Your task to perform on an android device: turn off improve location accuracy Image 0: 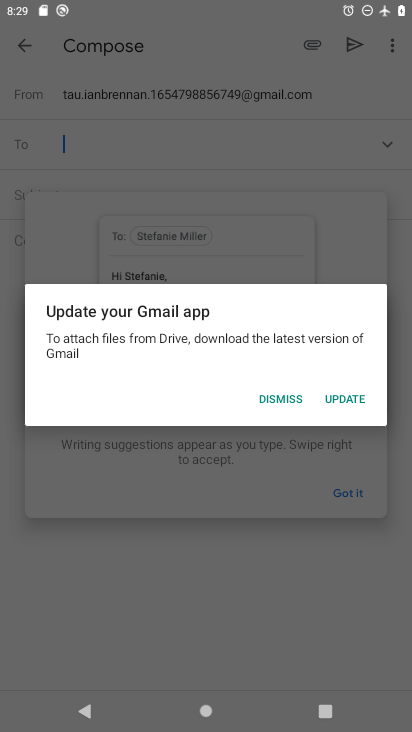
Step 0: press home button
Your task to perform on an android device: turn off improve location accuracy Image 1: 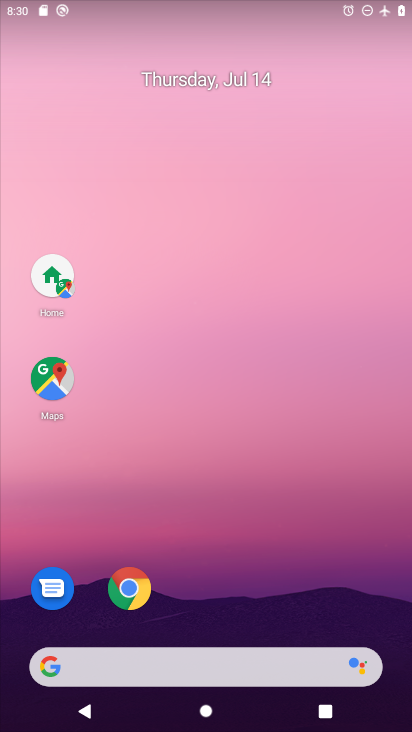
Step 1: drag from (73, 522) to (204, 165)
Your task to perform on an android device: turn off improve location accuracy Image 2: 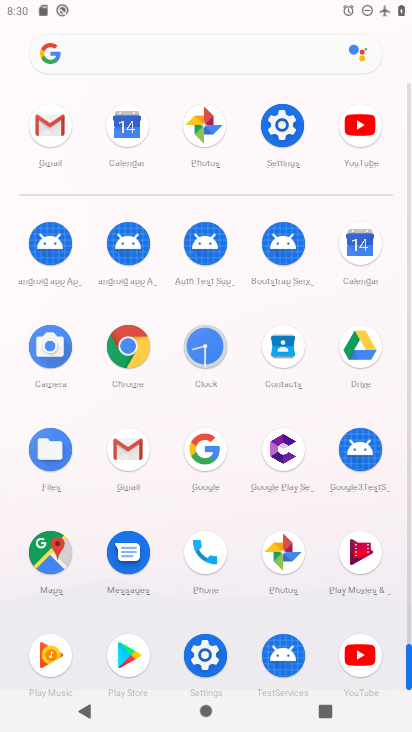
Step 2: click (196, 661)
Your task to perform on an android device: turn off improve location accuracy Image 3: 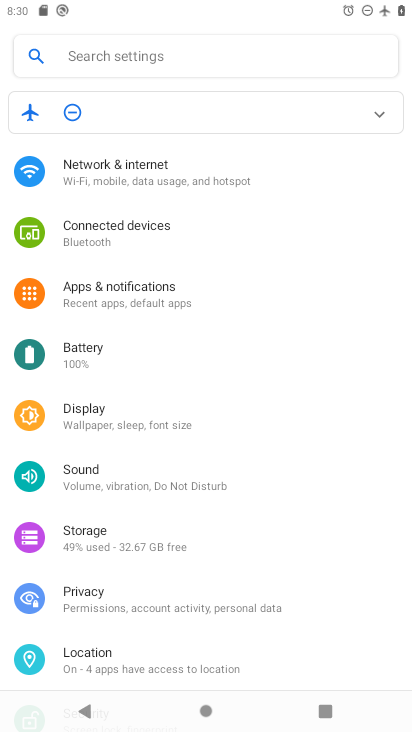
Step 3: click (126, 674)
Your task to perform on an android device: turn off improve location accuracy Image 4: 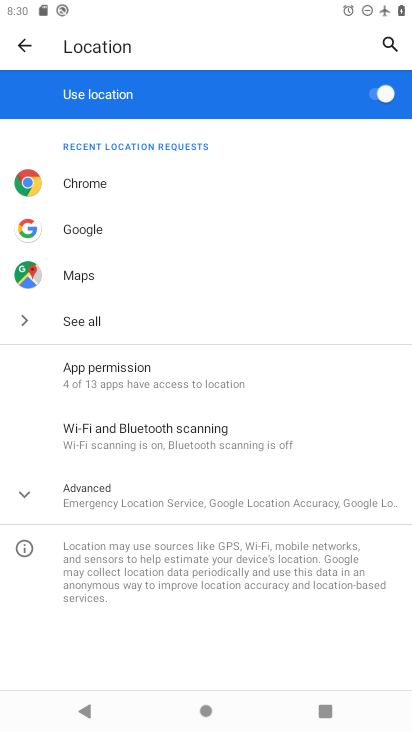
Step 4: click (184, 388)
Your task to perform on an android device: turn off improve location accuracy Image 5: 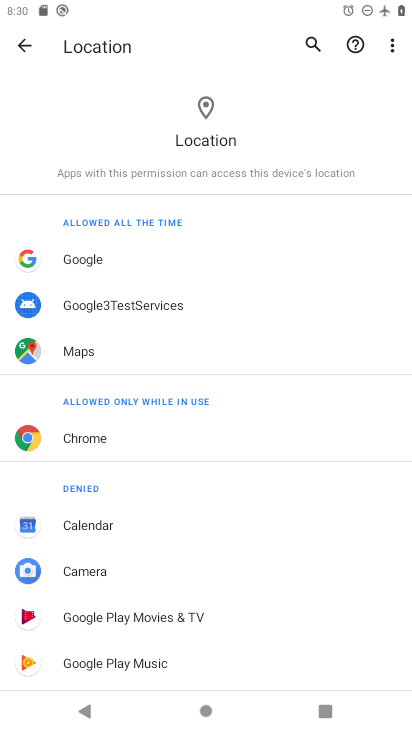
Step 5: click (23, 42)
Your task to perform on an android device: turn off improve location accuracy Image 6: 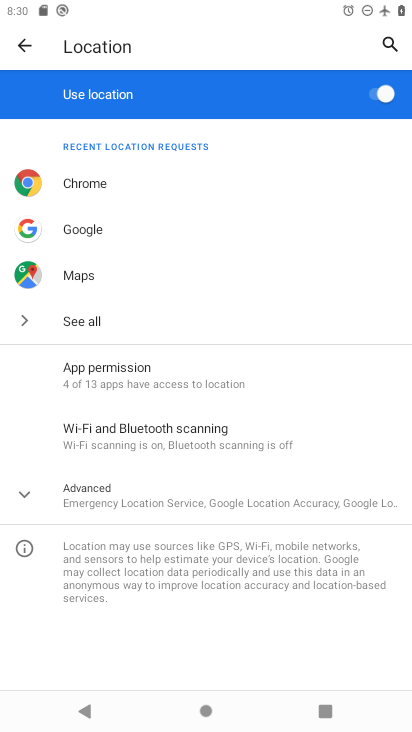
Step 6: click (96, 482)
Your task to perform on an android device: turn off improve location accuracy Image 7: 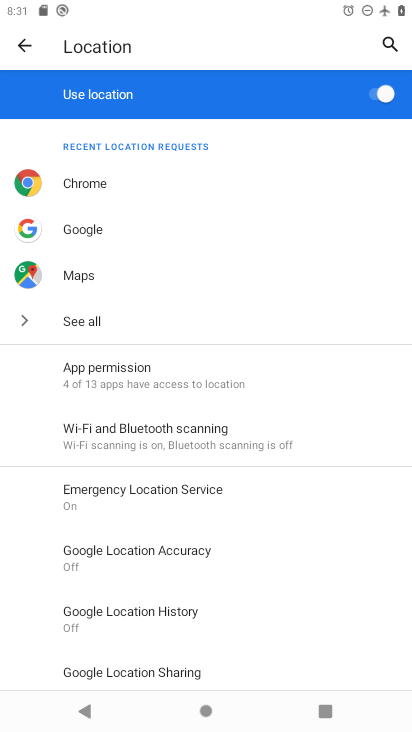
Step 7: task complete